Your task to perform on an android device: Open the calendar and show me this week's events? Image 0: 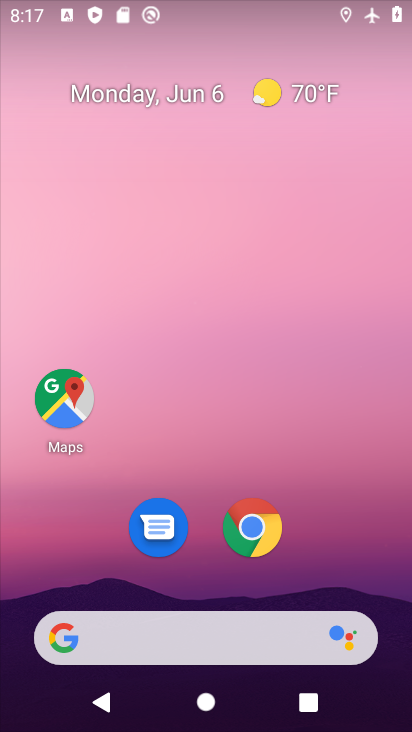
Step 0: drag from (201, 662) to (203, 308)
Your task to perform on an android device: Open the calendar and show me this week's events? Image 1: 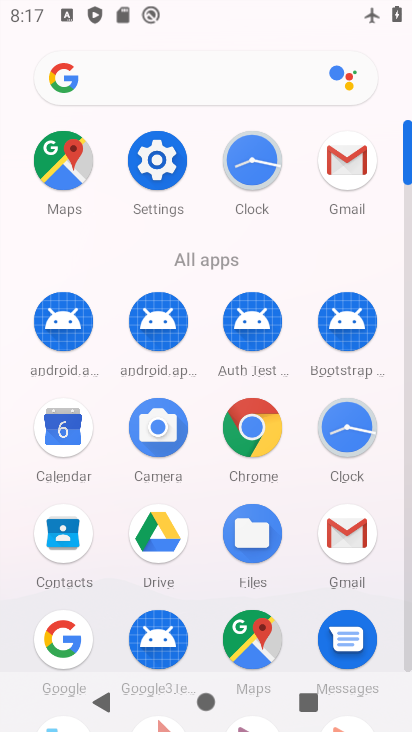
Step 1: click (67, 453)
Your task to perform on an android device: Open the calendar and show me this week's events? Image 2: 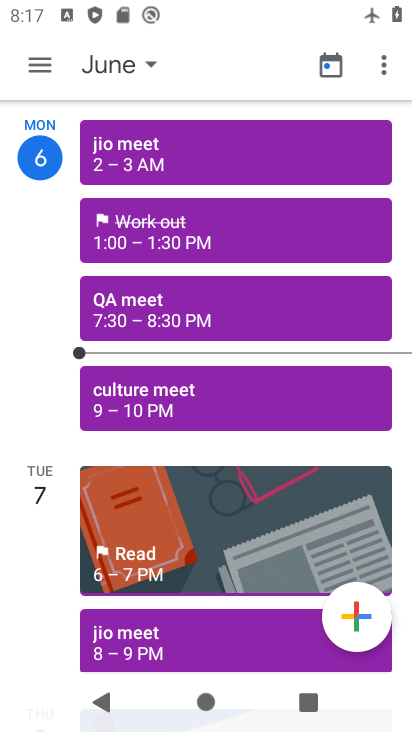
Step 2: click (148, 84)
Your task to perform on an android device: Open the calendar and show me this week's events? Image 3: 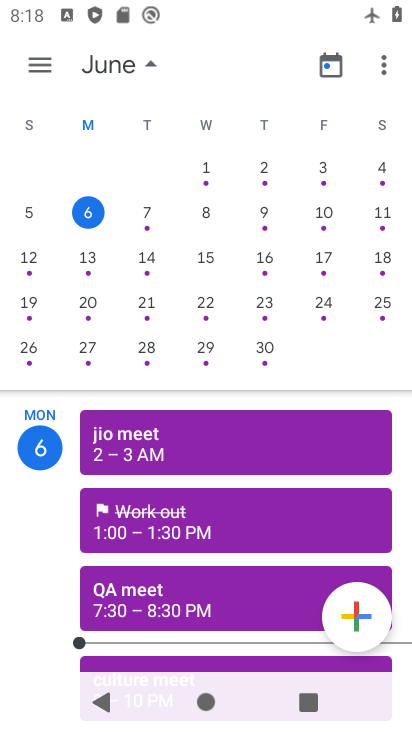
Step 3: click (87, 223)
Your task to perform on an android device: Open the calendar and show me this week's events? Image 4: 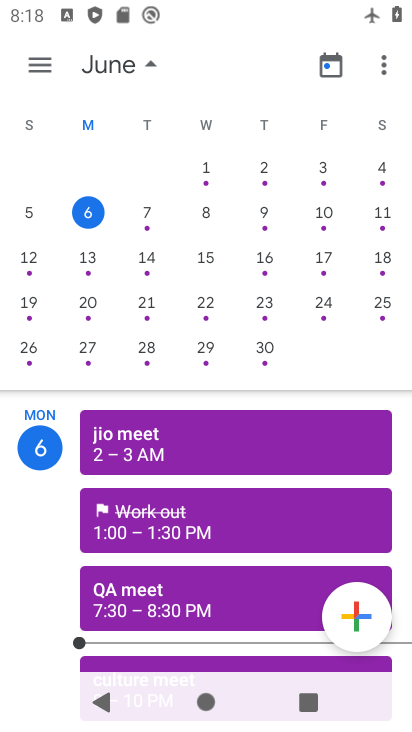
Step 4: task complete